Your task to perform on an android device: Open Yahoo.com Image 0: 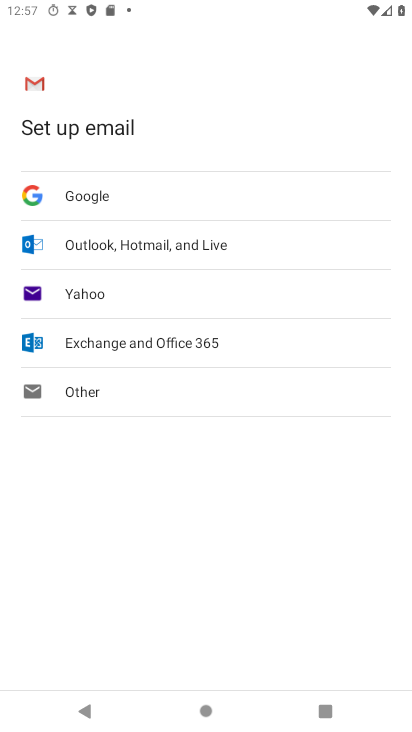
Step 0: press home button
Your task to perform on an android device: Open Yahoo.com Image 1: 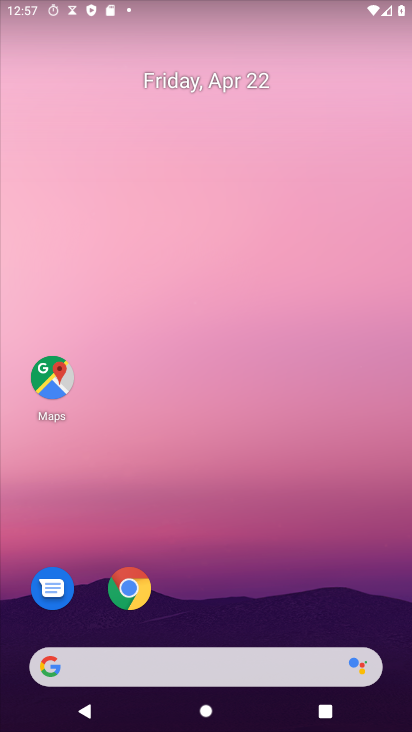
Step 1: drag from (238, 677) to (310, 220)
Your task to perform on an android device: Open Yahoo.com Image 2: 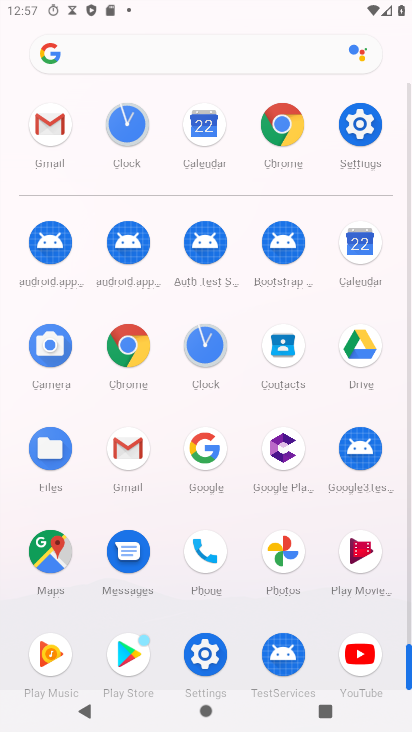
Step 2: click (279, 139)
Your task to perform on an android device: Open Yahoo.com Image 3: 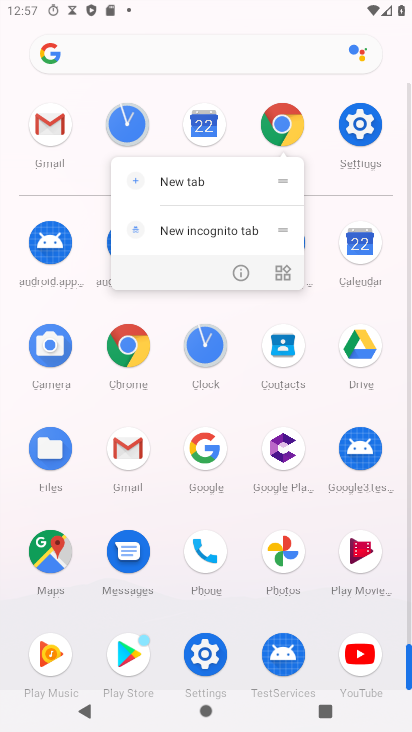
Step 3: click (277, 139)
Your task to perform on an android device: Open Yahoo.com Image 4: 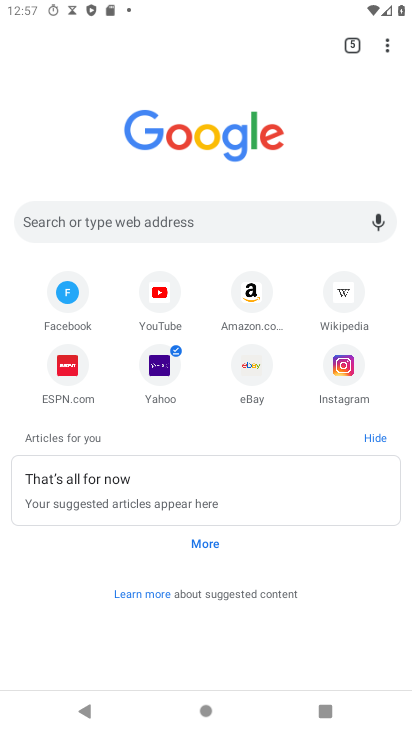
Step 4: click (156, 370)
Your task to perform on an android device: Open Yahoo.com Image 5: 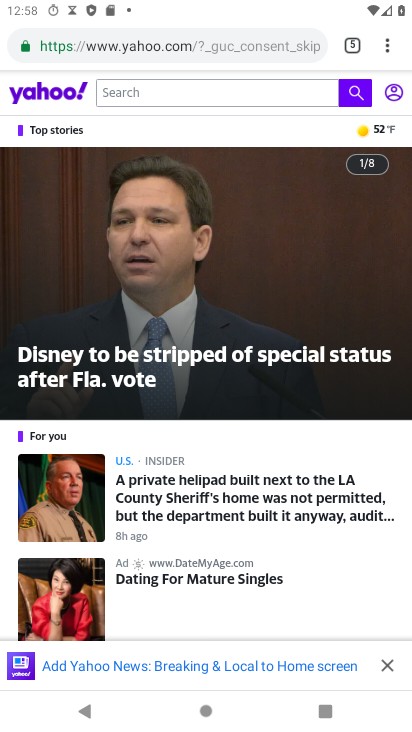
Step 5: task complete